Your task to perform on an android device: turn off airplane mode Image 0: 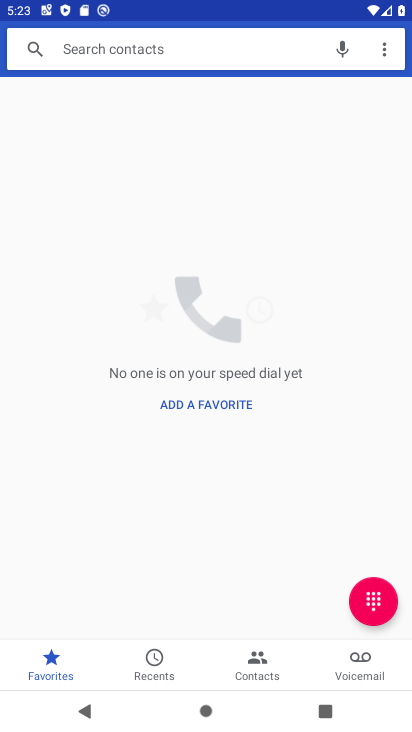
Step 0: press home button
Your task to perform on an android device: turn off airplane mode Image 1: 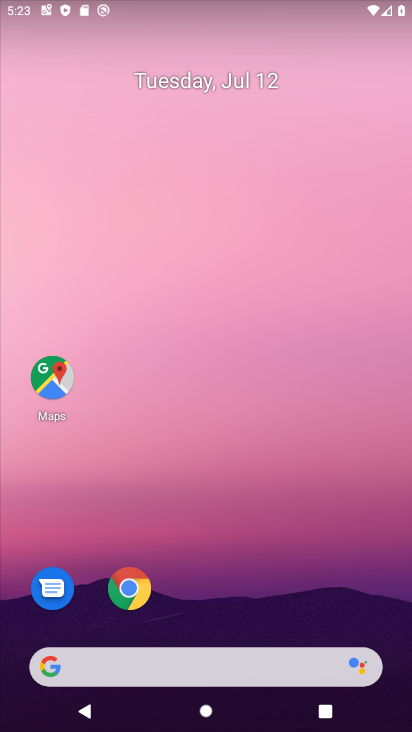
Step 1: drag from (259, 294) to (271, 68)
Your task to perform on an android device: turn off airplane mode Image 2: 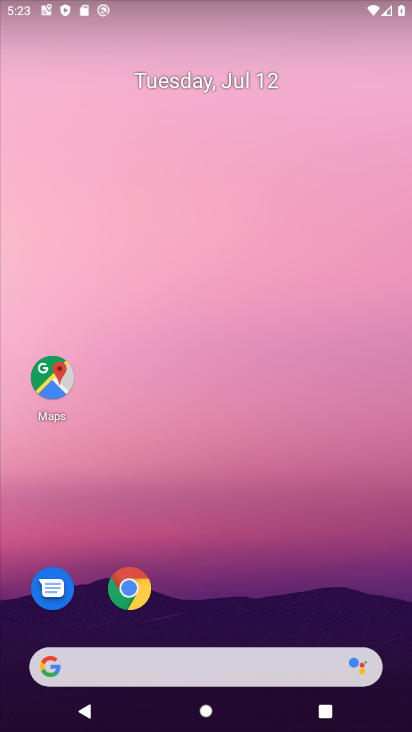
Step 2: drag from (279, 467) to (263, 63)
Your task to perform on an android device: turn off airplane mode Image 3: 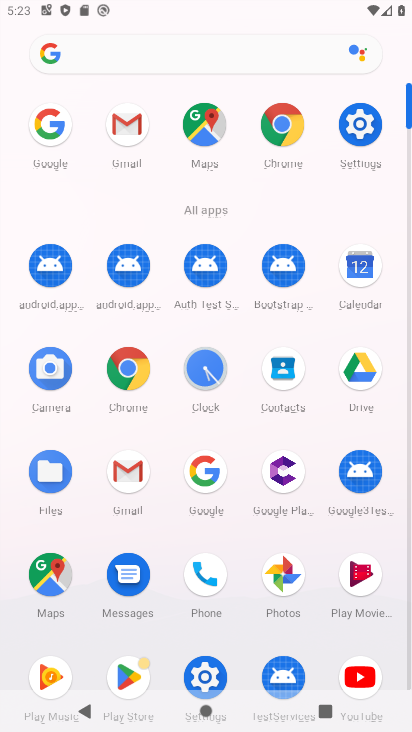
Step 3: click (354, 140)
Your task to perform on an android device: turn off airplane mode Image 4: 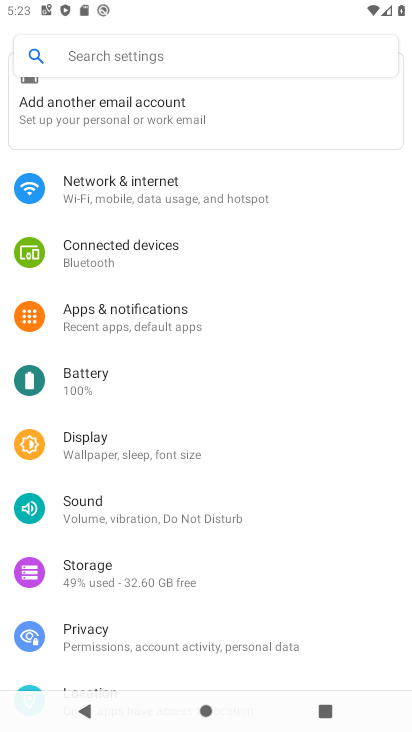
Step 4: click (112, 193)
Your task to perform on an android device: turn off airplane mode Image 5: 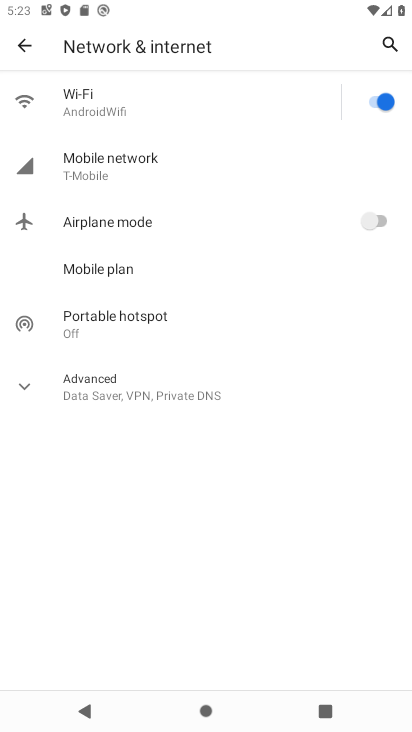
Step 5: task complete